Your task to perform on an android device: turn on javascript in the chrome app Image 0: 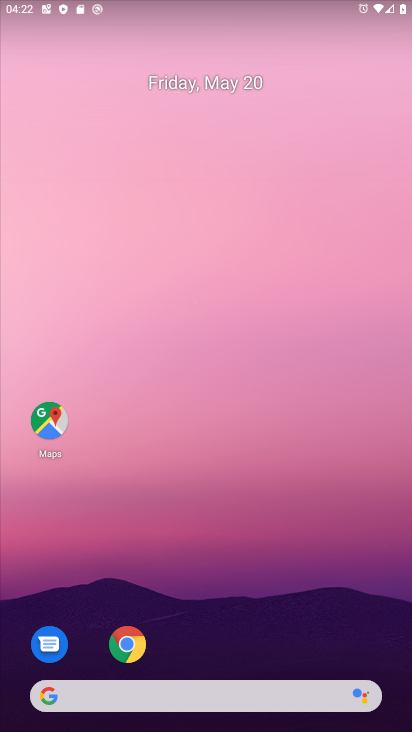
Step 0: drag from (323, 610) to (202, 124)
Your task to perform on an android device: turn on javascript in the chrome app Image 1: 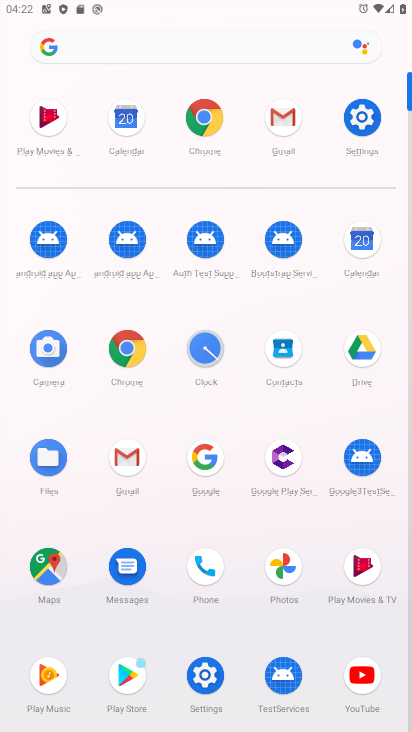
Step 1: click (214, 140)
Your task to perform on an android device: turn on javascript in the chrome app Image 2: 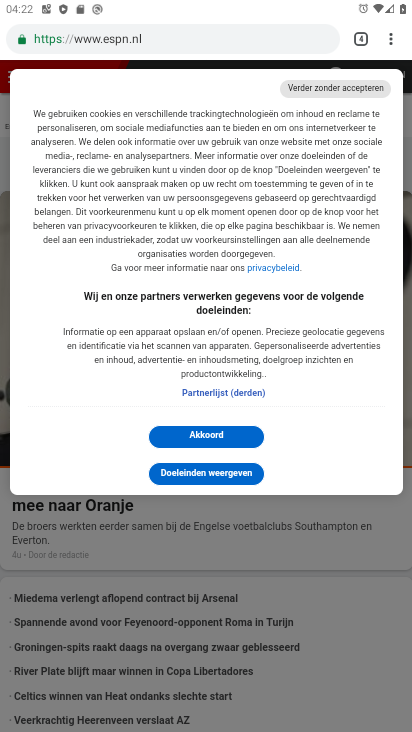
Step 2: click (401, 29)
Your task to perform on an android device: turn on javascript in the chrome app Image 3: 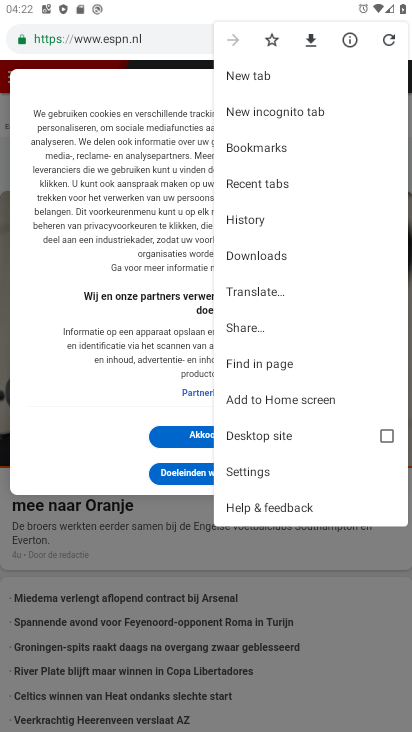
Step 3: click (241, 470)
Your task to perform on an android device: turn on javascript in the chrome app Image 4: 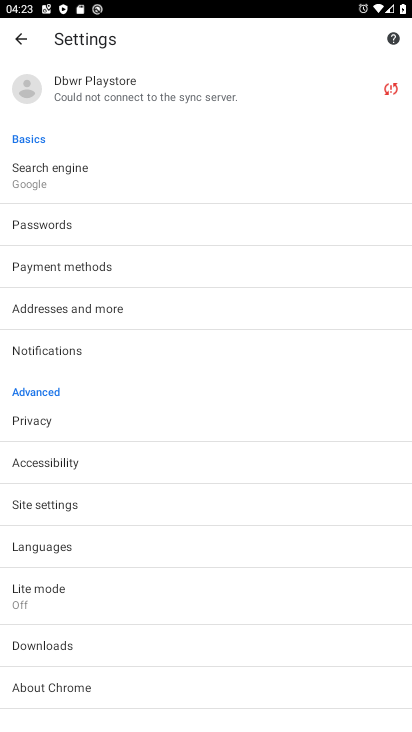
Step 4: click (137, 517)
Your task to perform on an android device: turn on javascript in the chrome app Image 5: 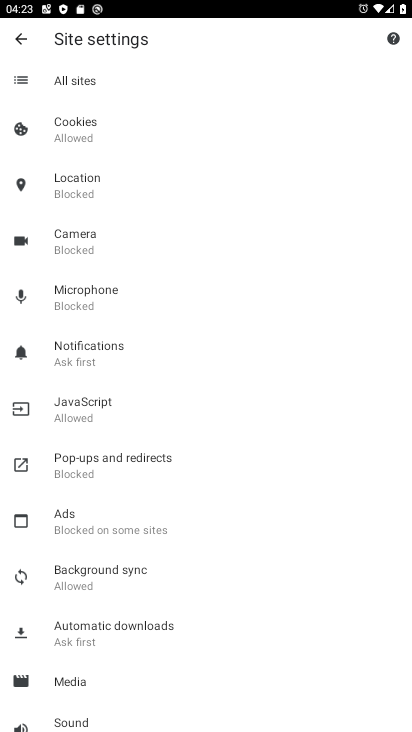
Step 5: click (106, 401)
Your task to perform on an android device: turn on javascript in the chrome app Image 6: 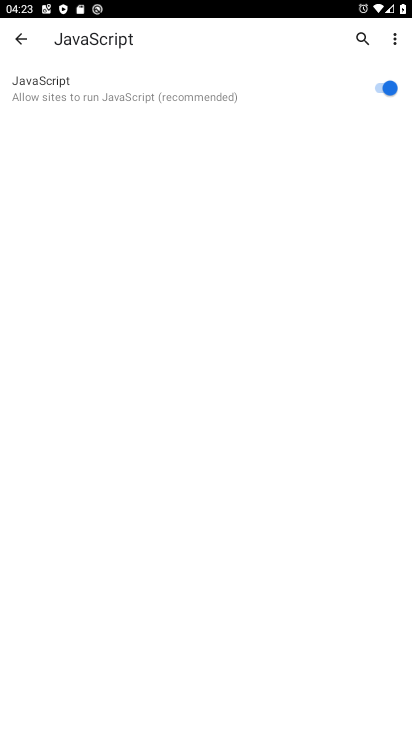
Step 6: click (386, 82)
Your task to perform on an android device: turn on javascript in the chrome app Image 7: 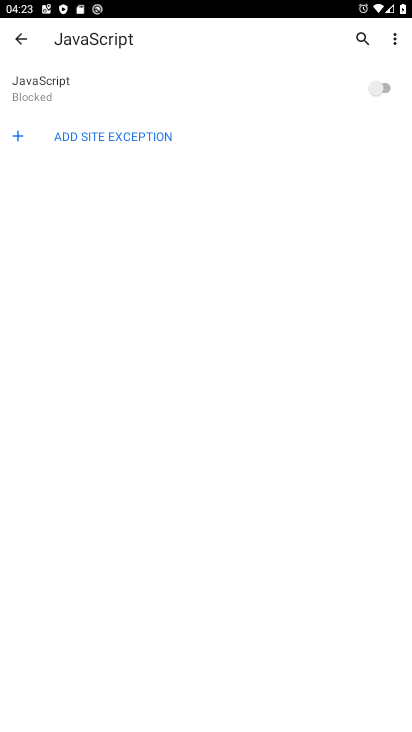
Step 7: task complete